Your task to perform on an android device: Open sound settings Image 0: 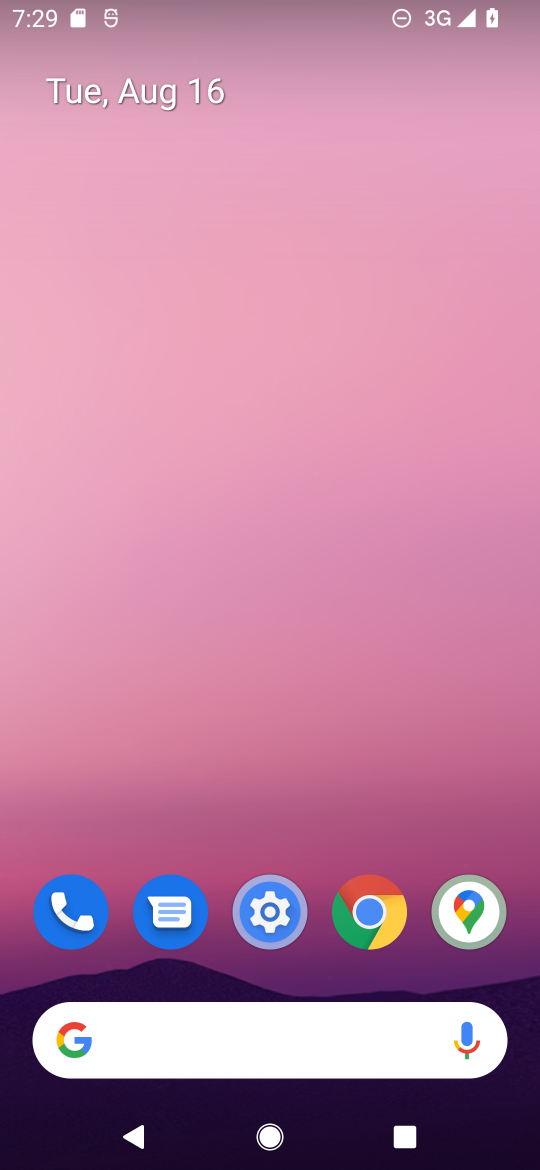
Step 0: click (267, 909)
Your task to perform on an android device: Open sound settings Image 1: 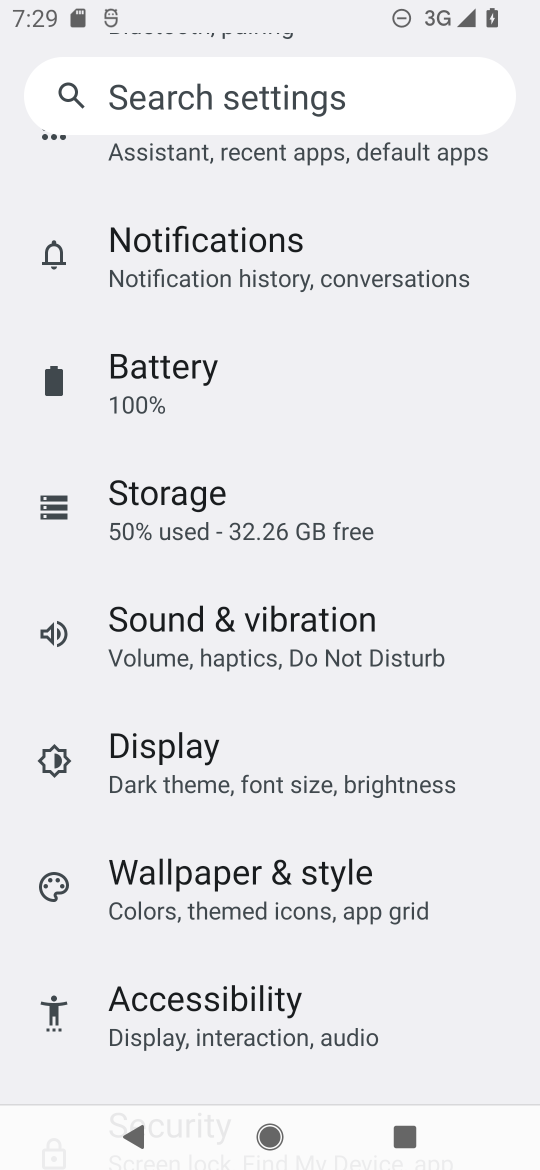
Step 1: click (161, 619)
Your task to perform on an android device: Open sound settings Image 2: 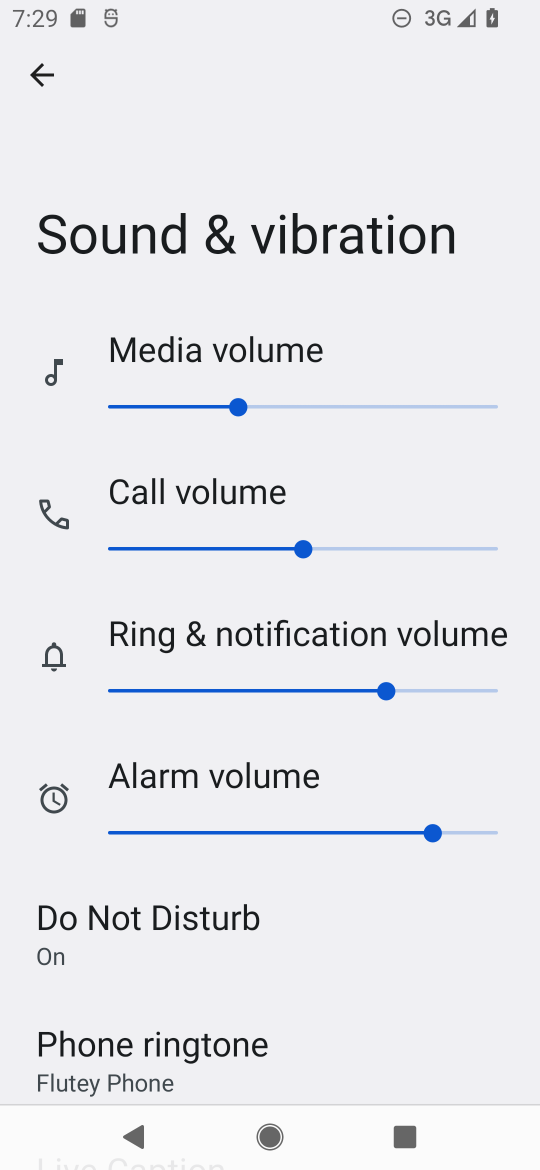
Step 2: task complete